Your task to perform on an android device: Go to ESPN.com Image 0: 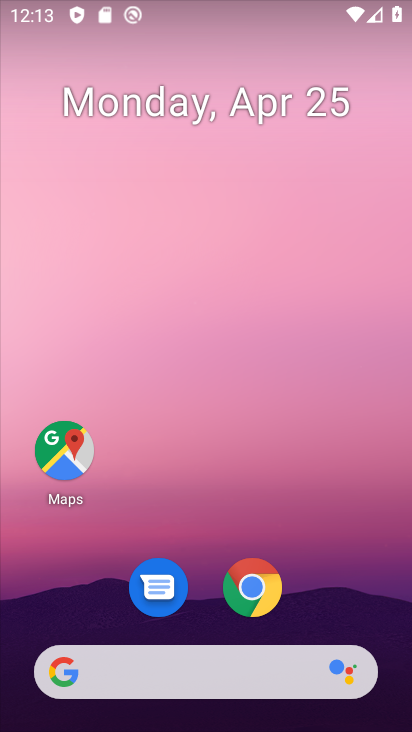
Step 0: drag from (325, 563) to (271, 159)
Your task to perform on an android device: Go to ESPN.com Image 1: 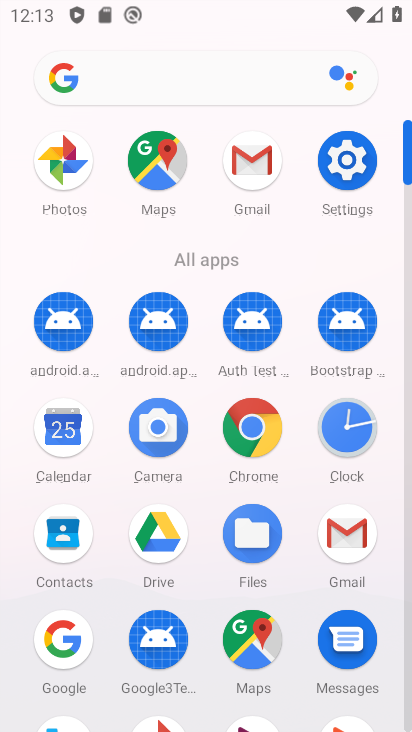
Step 1: click (262, 436)
Your task to perform on an android device: Go to ESPN.com Image 2: 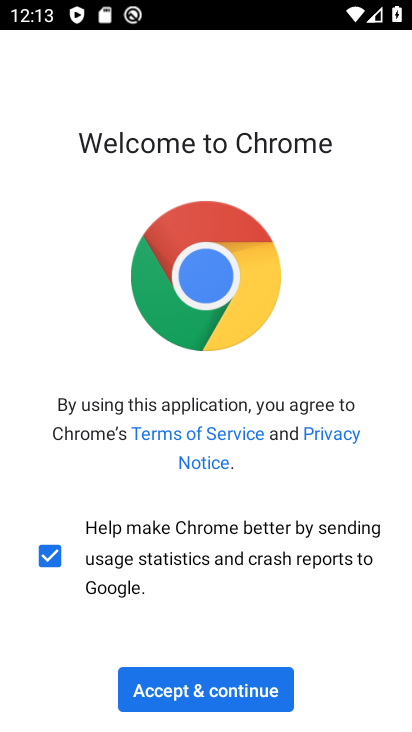
Step 2: click (207, 675)
Your task to perform on an android device: Go to ESPN.com Image 3: 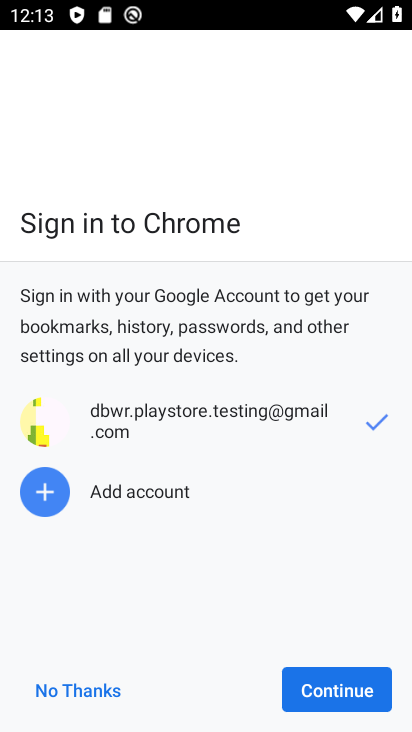
Step 3: click (312, 688)
Your task to perform on an android device: Go to ESPN.com Image 4: 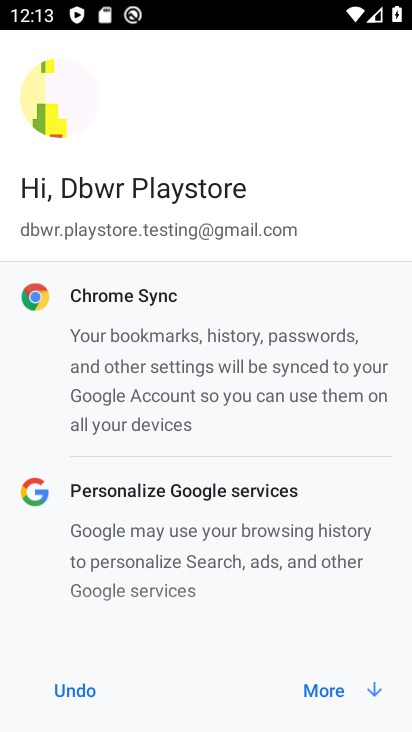
Step 4: click (312, 688)
Your task to perform on an android device: Go to ESPN.com Image 5: 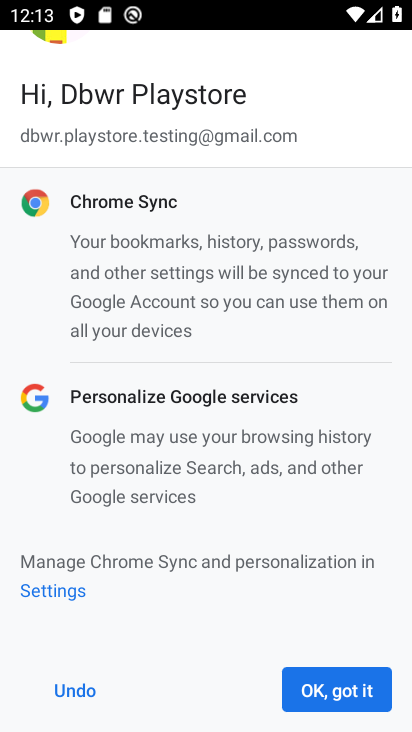
Step 5: click (312, 688)
Your task to perform on an android device: Go to ESPN.com Image 6: 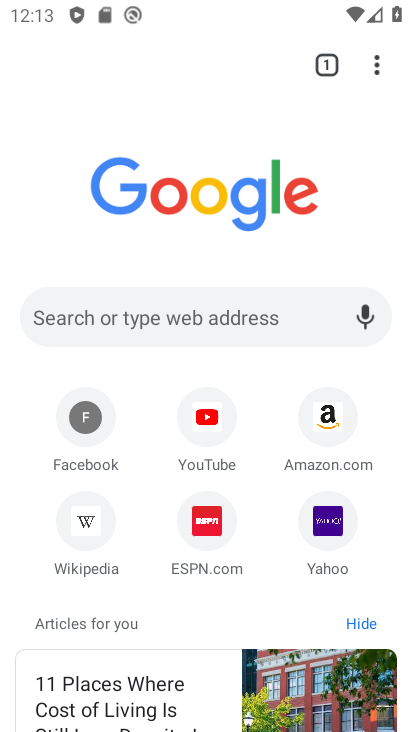
Step 6: click (225, 549)
Your task to perform on an android device: Go to ESPN.com Image 7: 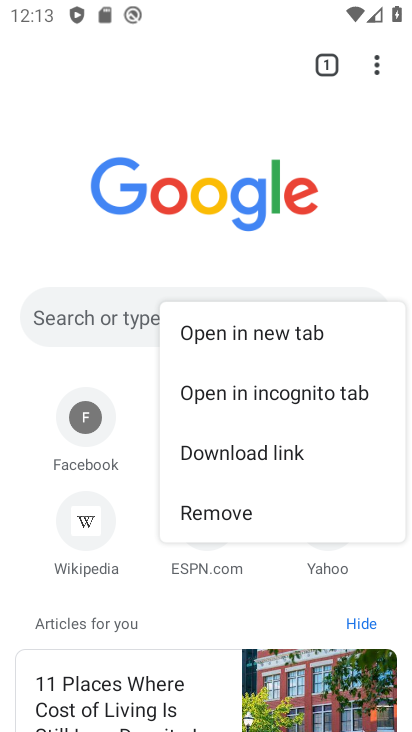
Step 7: click (202, 559)
Your task to perform on an android device: Go to ESPN.com Image 8: 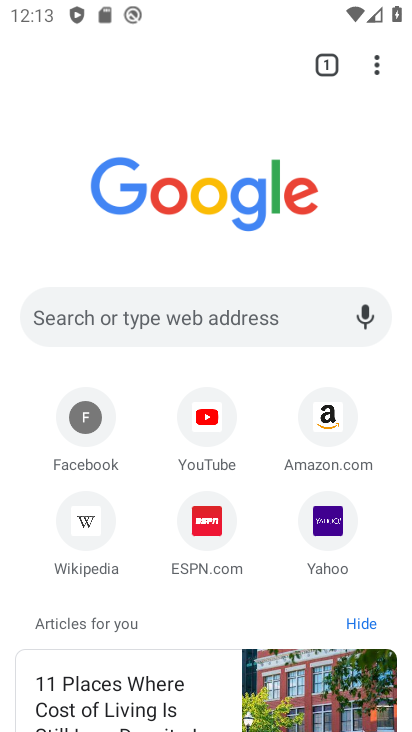
Step 8: click (205, 543)
Your task to perform on an android device: Go to ESPN.com Image 9: 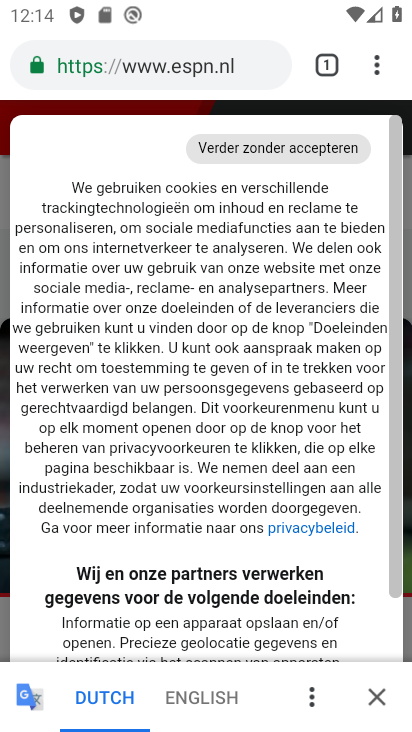
Step 9: task complete